Your task to perform on an android device: make emails show in primary in the gmail app Image 0: 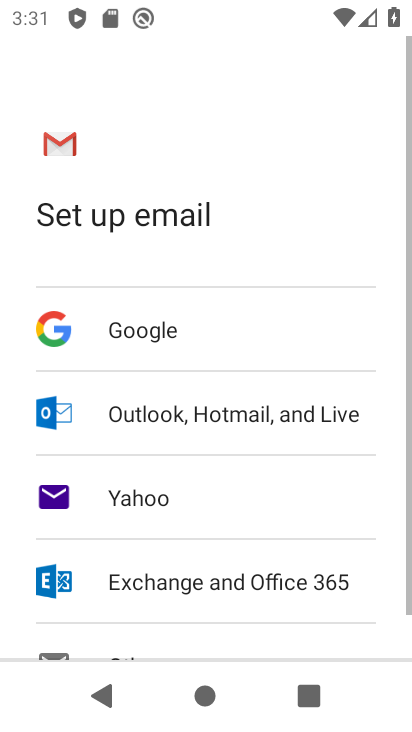
Step 0: press home button
Your task to perform on an android device: make emails show in primary in the gmail app Image 1: 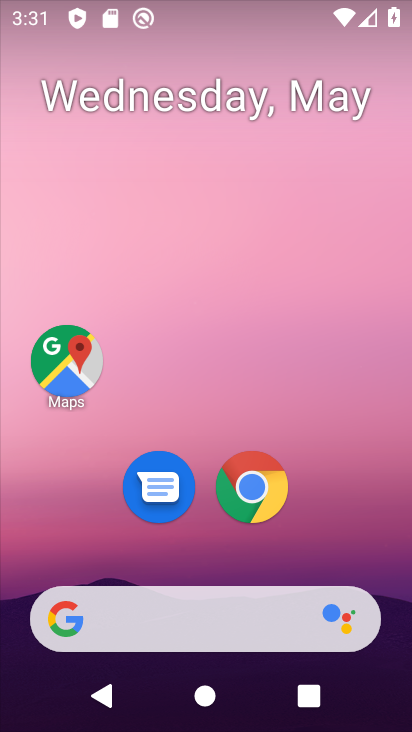
Step 1: drag from (339, 408) to (314, 192)
Your task to perform on an android device: make emails show in primary in the gmail app Image 2: 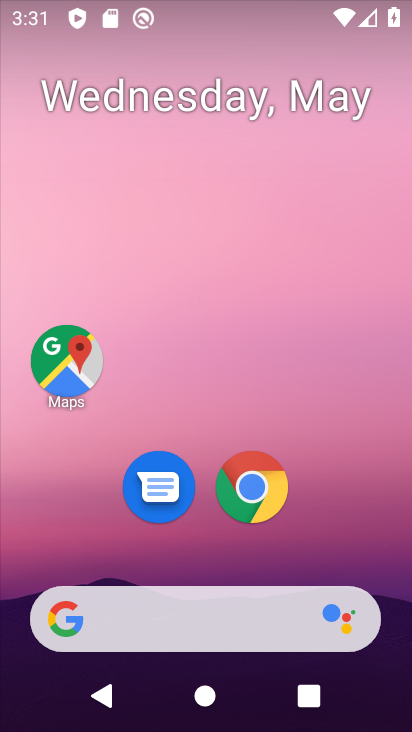
Step 2: drag from (350, 473) to (333, 138)
Your task to perform on an android device: make emails show in primary in the gmail app Image 3: 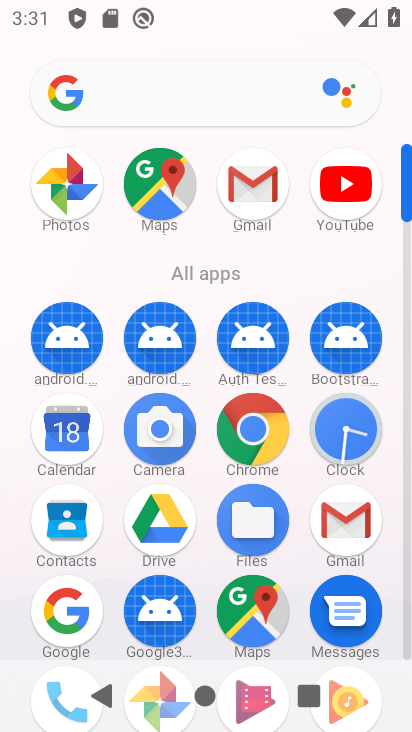
Step 3: click (265, 198)
Your task to perform on an android device: make emails show in primary in the gmail app Image 4: 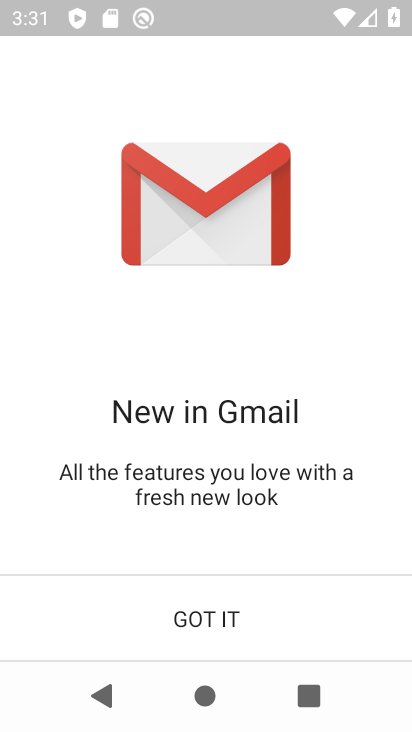
Step 4: click (199, 615)
Your task to perform on an android device: make emails show in primary in the gmail app Image 5: 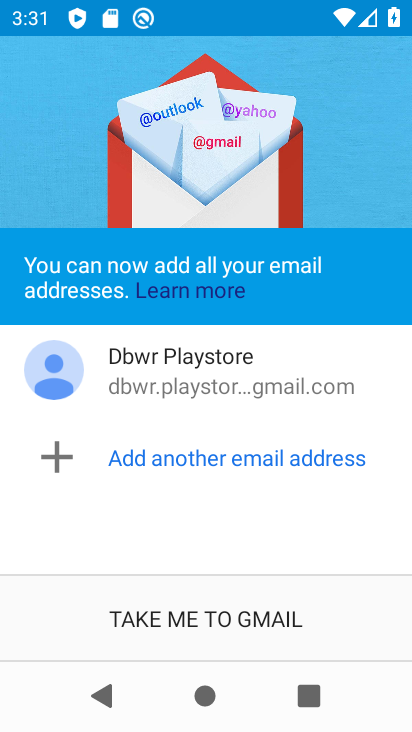
Step 5: click (221, 627)
Your task to perform on an android device: make emails show in primary in the gmail app Image 6: 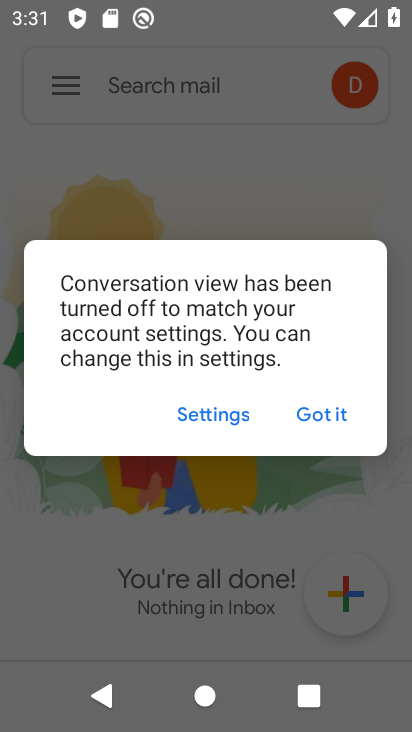
Step 6: click (325, 417)
Your task to perform on an android device: make emails show in primary in the gmail app Image 7: 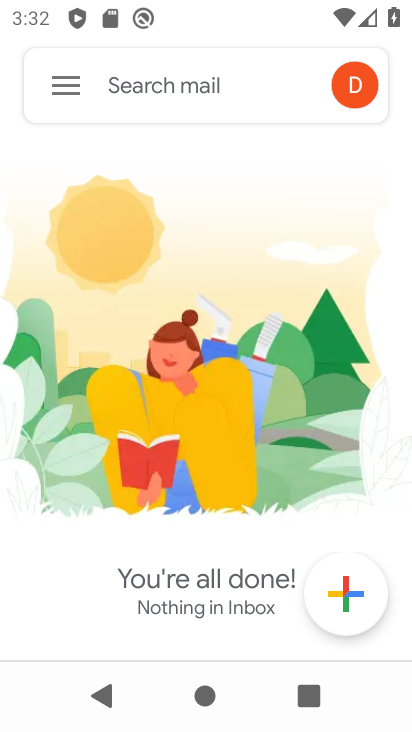
Step 7: click (62, 87)
Your task to perform on an android device: make emails show in primary in the gmail app Image 8: 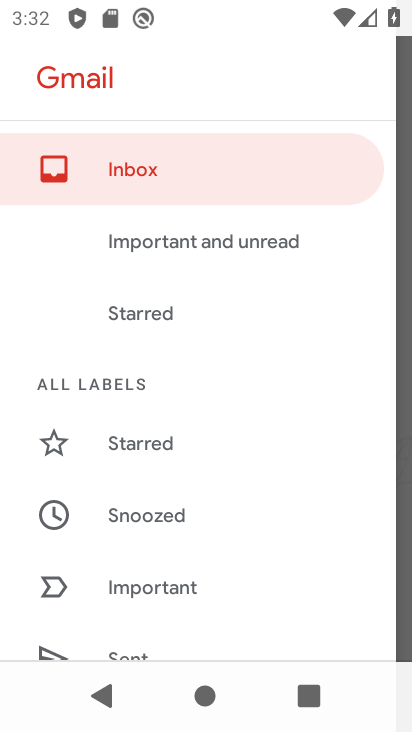
Step 8: drag from (209, 629) to (282, 196)
Your task to perform on an android device: make emails show in primary in the gmail app Image 9: 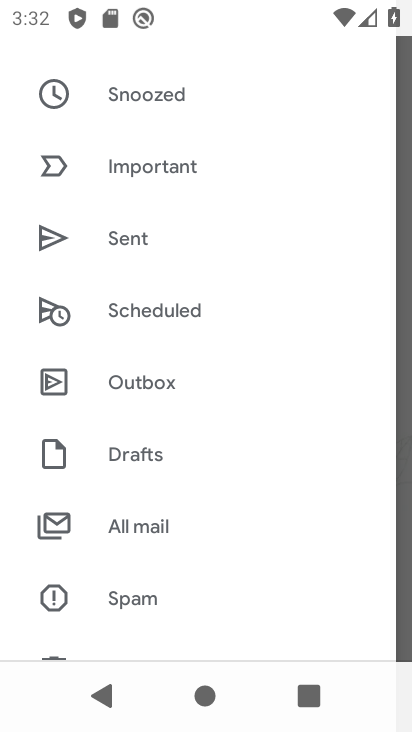
Step 9: drag from (215, 620) to (228, 365)
Your task to perform on an android device: make emails show in primary in the gmail app Image 10: 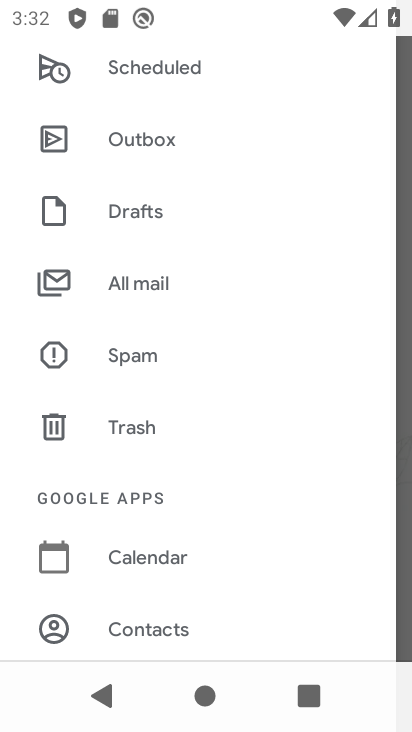
Step 10: drag from (212, 615) to (225, 266)
Your task to perform on an android device: make emails show in primary in the gmail app Image 11: 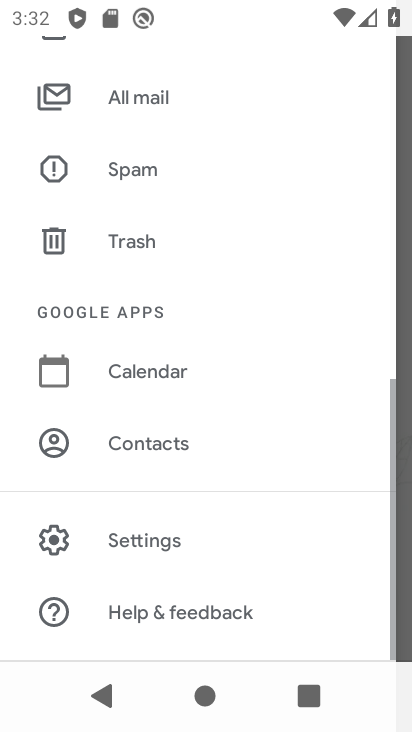
Step 11: click (169, 543)
Your task to perform on an android device: make emails show in primary in the gmail app Image 12: 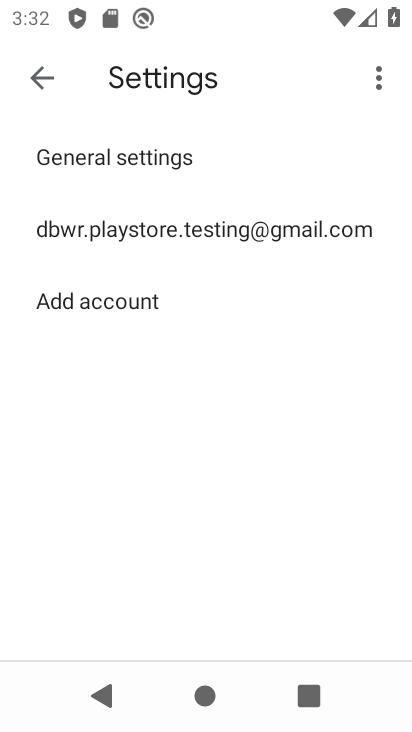
Step 12: click (165, 226)
Your task to perform on an android device: make emails show in primary in the gmail app Image 13: 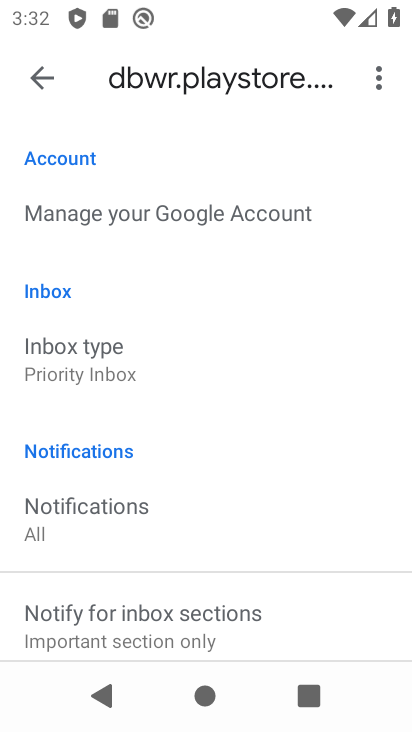
Step 13: click (129, 380)
Your task to perform on an android device: make emails show in primary in the gmail app Image 14: 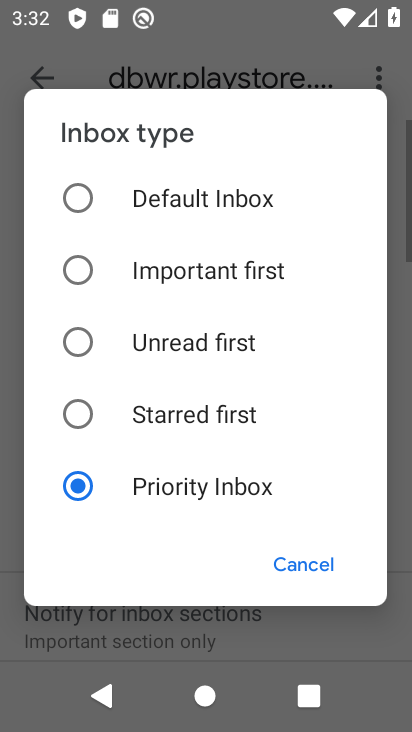
Step 14: click (145, 203)
Your task to perform on an android device: make emails show in primary in the gmail app Image 15: 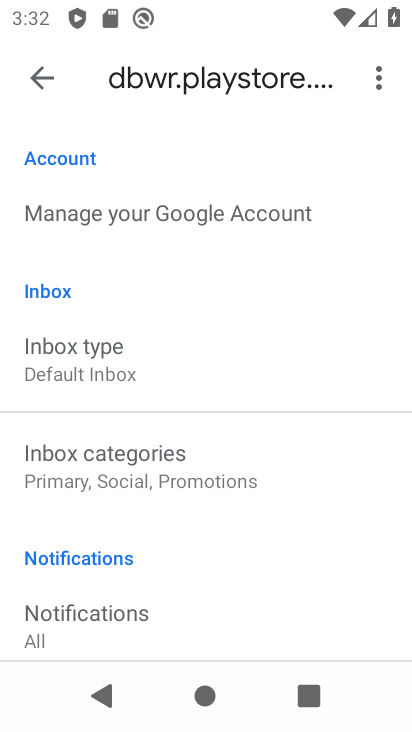
Step 15: press back button
Your task to perform on an android device: make emails show in primary in the gmail app Image 16: 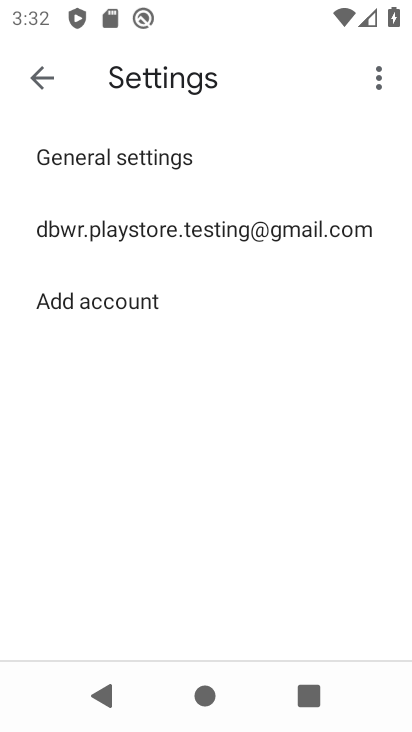
Step 16: press back button
Your task to perform on an android device: make emails show in primary in the gmail app Image 17: 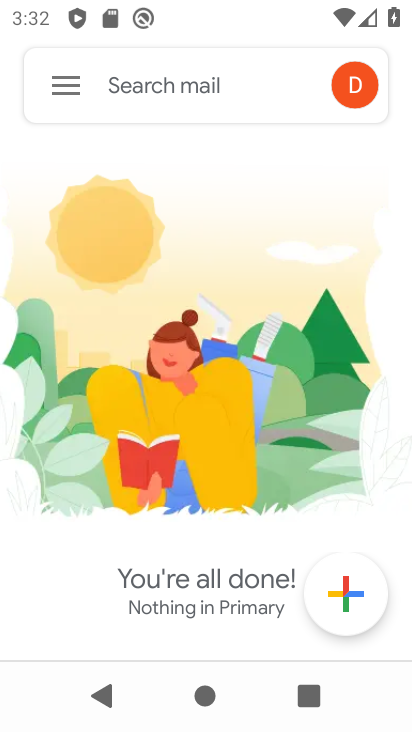
Step 17: click (67, 86)
Your task to perform on an android device: make emails show in primary in the gmail app Image 18: 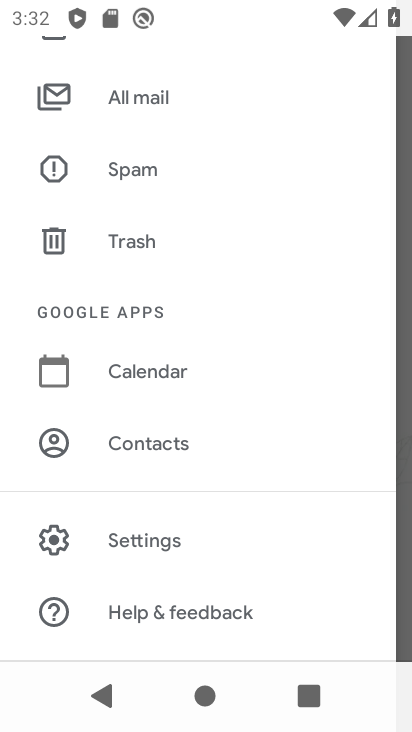
Step 18: drag from (239, 152) to (212, 643)
Your task to perform on an android device: make emails show in primary in the gmail app Image 19: 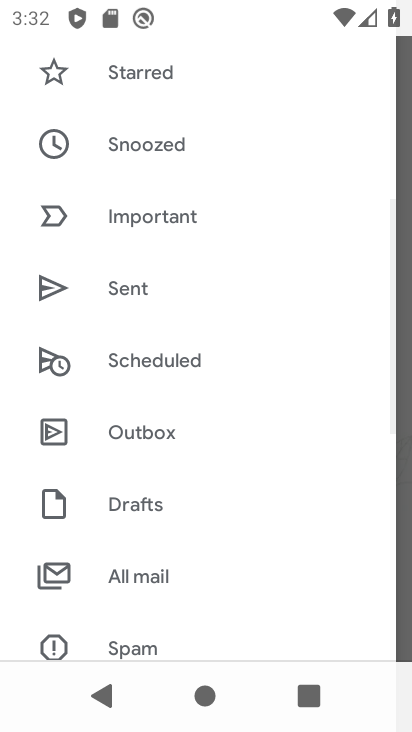
Step 19: drag from (179, 236) to (124, 636)
Your task to perform on an android device: make emails show in primary in the gmail app Image 20: 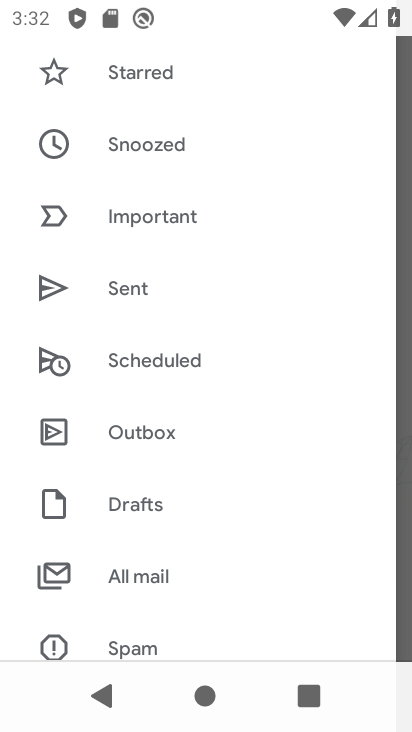
Step 20: drag from (165, 317) to (171, 590)
Your task to perform on an android device: make emails show in primary in the gmail app Image 21: 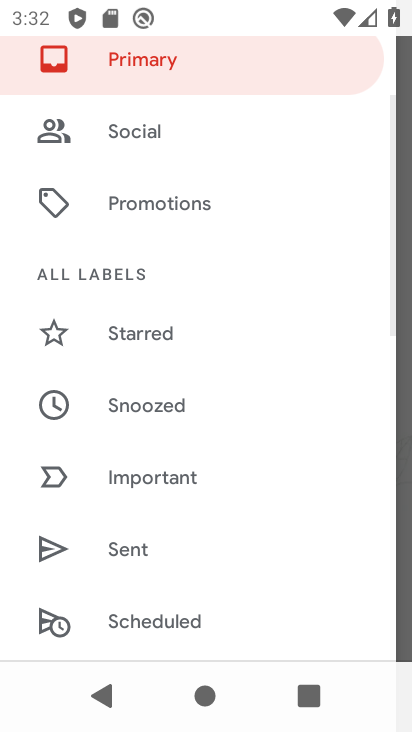
Step 21: drag from (135, 372) to (129, 515)
Your task to perform on an android device: make emails show in primary in the gmail app Image 22: 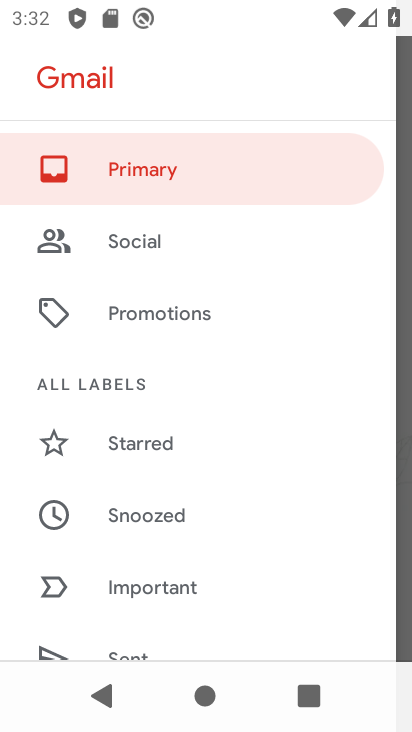
Step 22: click (168, 172)
Your task to perform on an android device: make emails show in primary in the gmail app Image 23: 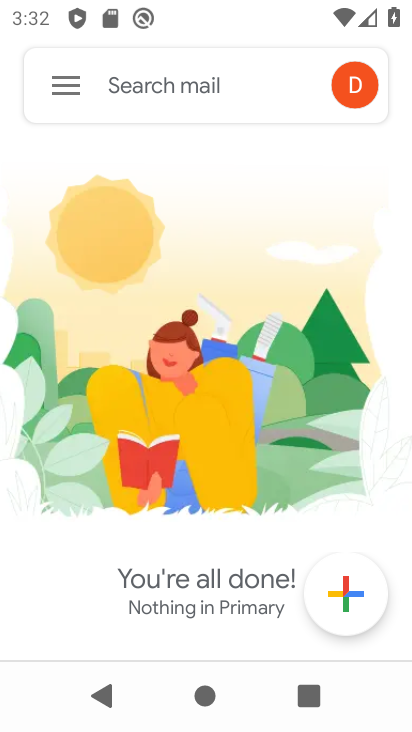
Step 23: task complete